Your task to perform on an android device: Open the map Image 0: 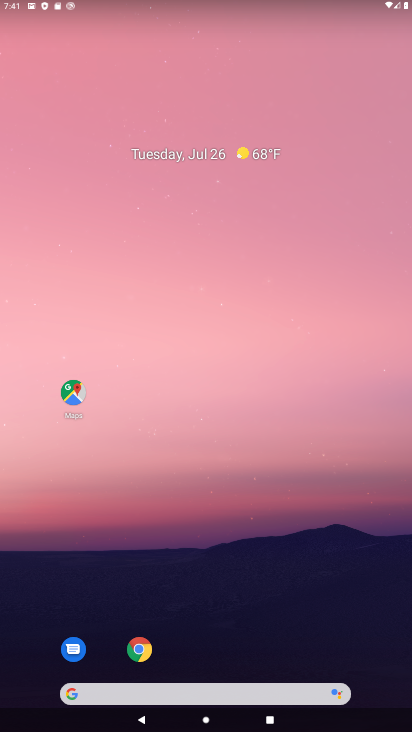
Step 0: click (63, 389)
Your task to perform on an android device: Open the map Image 1: 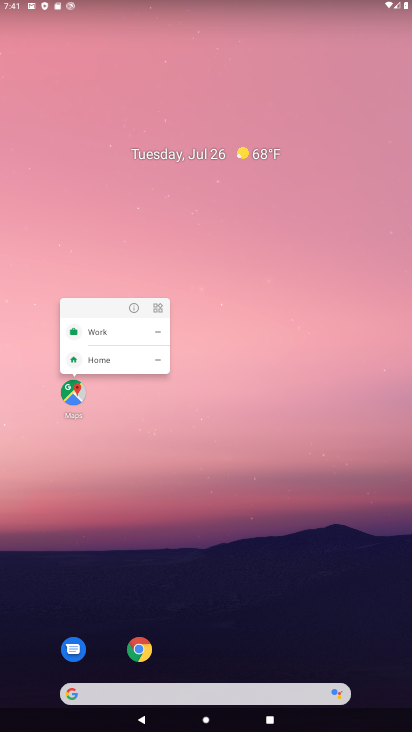
Step 1: click (63, 384)
Your task to perform on an android device: Open the map Image 2: 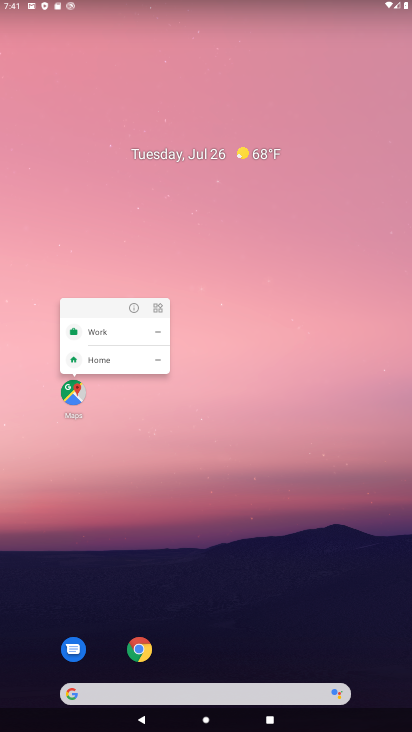
Step 2: click (68, 398)
Your task to perform on an android device: Open the map Image 3: 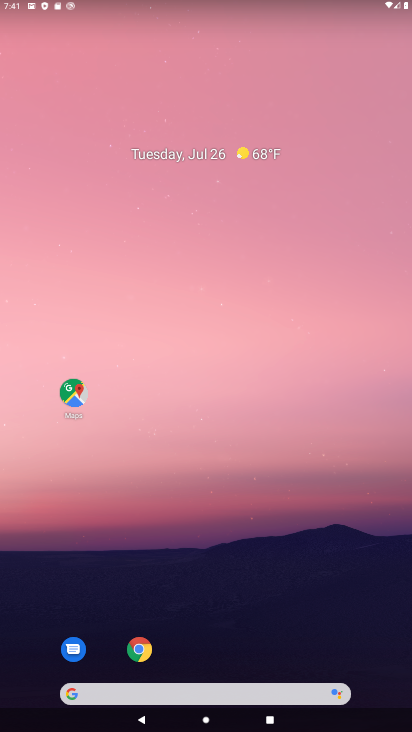
Step 3: click (68, 398)
Your task to perform on an android device: Open the map Image 4: 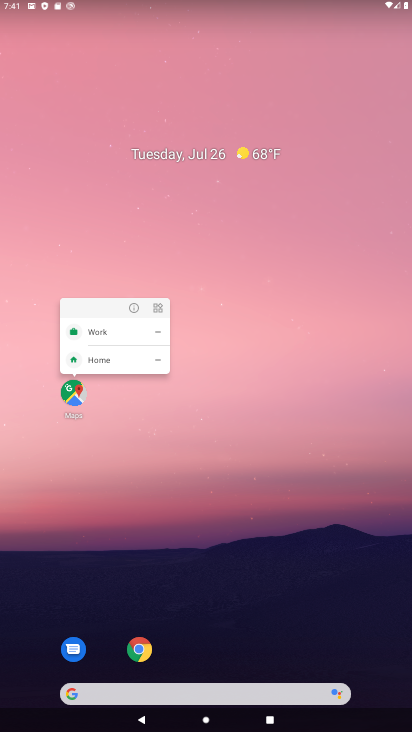
Step 4: click (68, 398)
Your task to perform on an android device: Open the map Image 5: 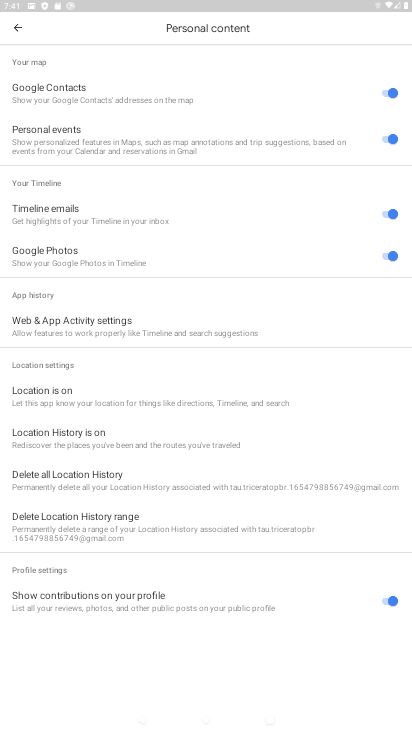
Step 5: click (10, 29)
Your task to perform on an android device: Open the map Image 6: 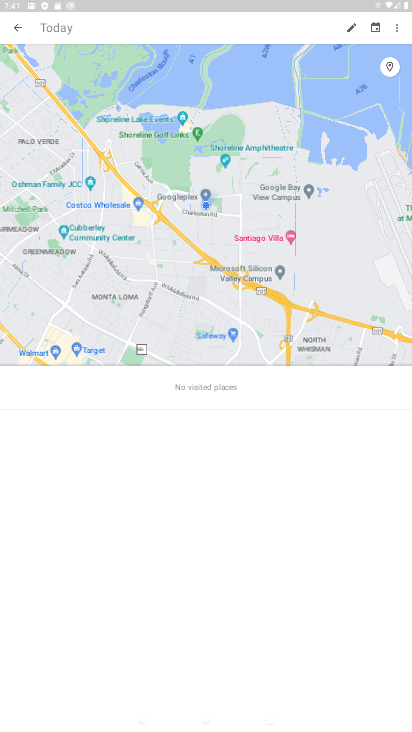
Step 6: click (11, 31)
Your task to perform on an android device: Open the map Image 7: 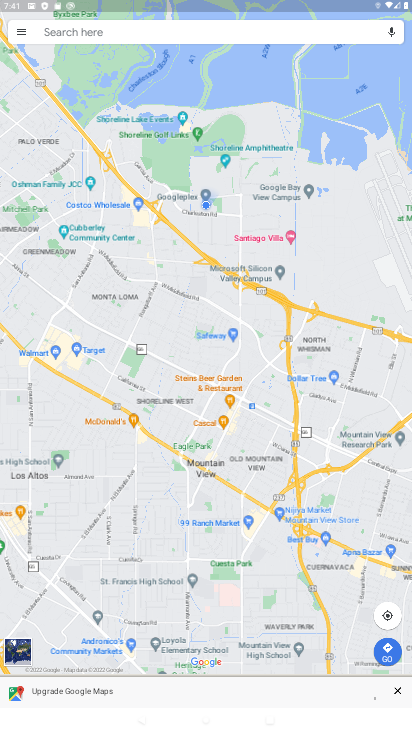
Step 7: task complete